Your task to perform on an android device: Open Chrome and go to settings Image 0: 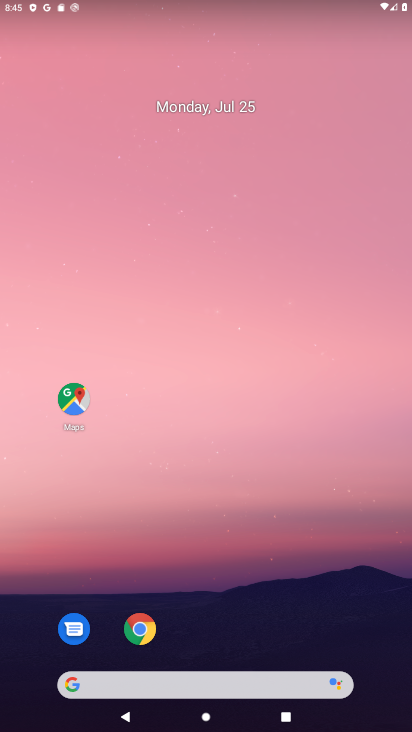
Step 0: click (137, 631)
Your task to perform on an android device: Open Chrome and go to settings Image 1: 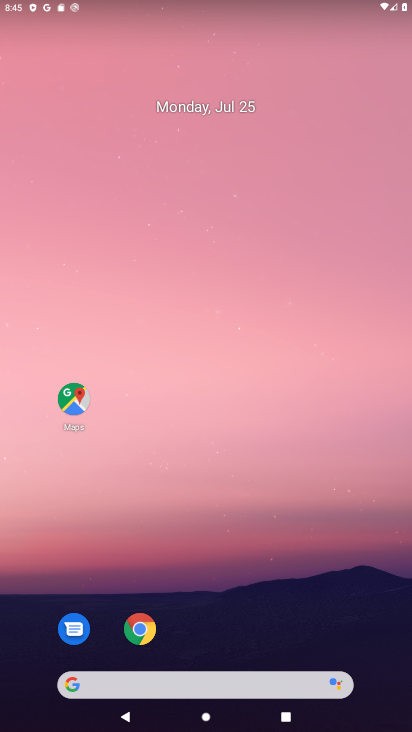
Step 1: click (137, 631)
Your task to perform on an android device: Open Chrome and go to settings Image 2: 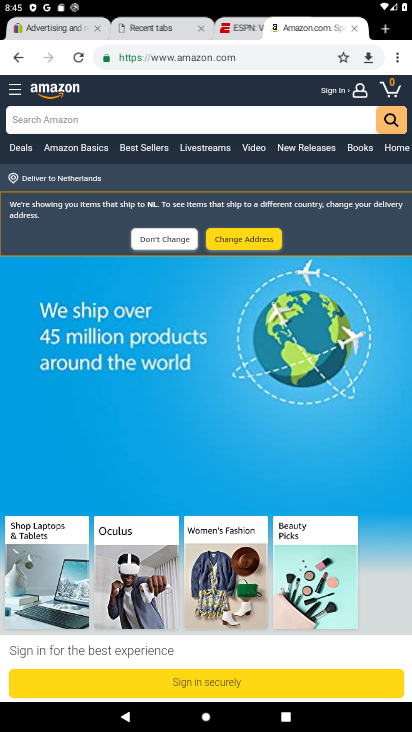
Step 2: click (408, 57)
Your task to perform on an android device: Open Chrome and go to settings Image 3: 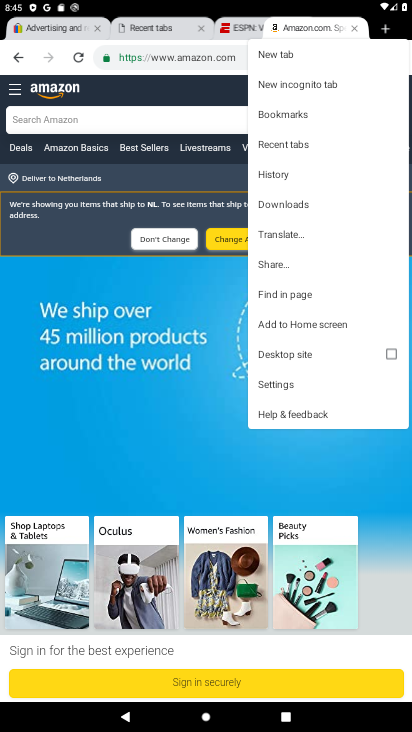
Step 3: click (280, 380)
Your task to perform on an android device: Open Chrome and go to settings Image 4: 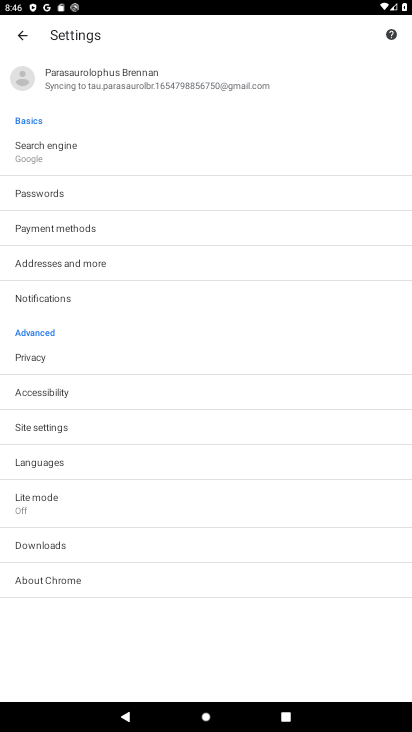
Step 4: task complete